Your task to perform on an android device: What's the news in Pakistan? Image 0: 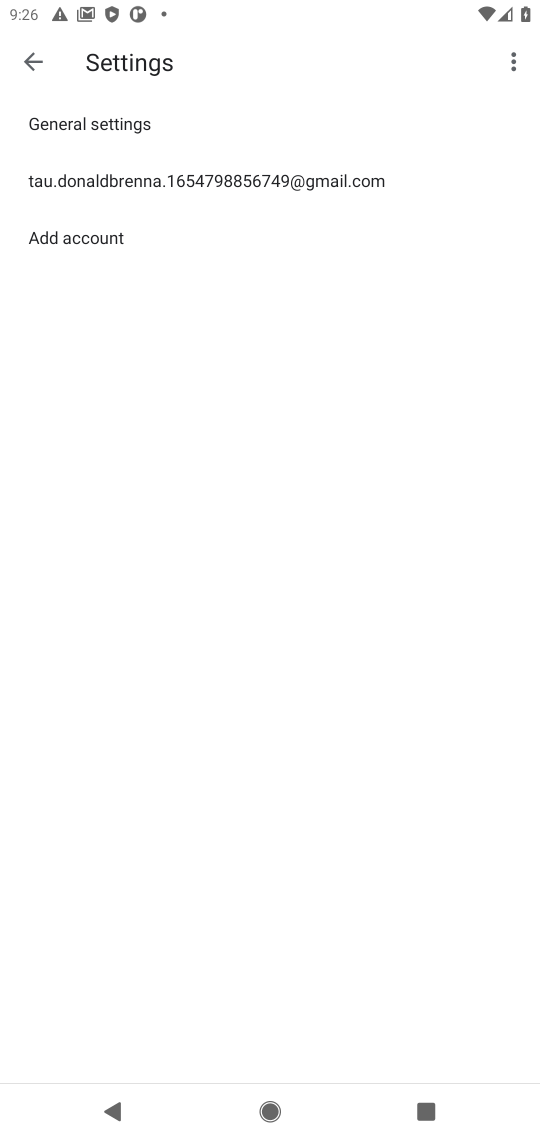
Step 0: press home button
Your task to perform on an android device: What's the news in Pakistan? Image 1: 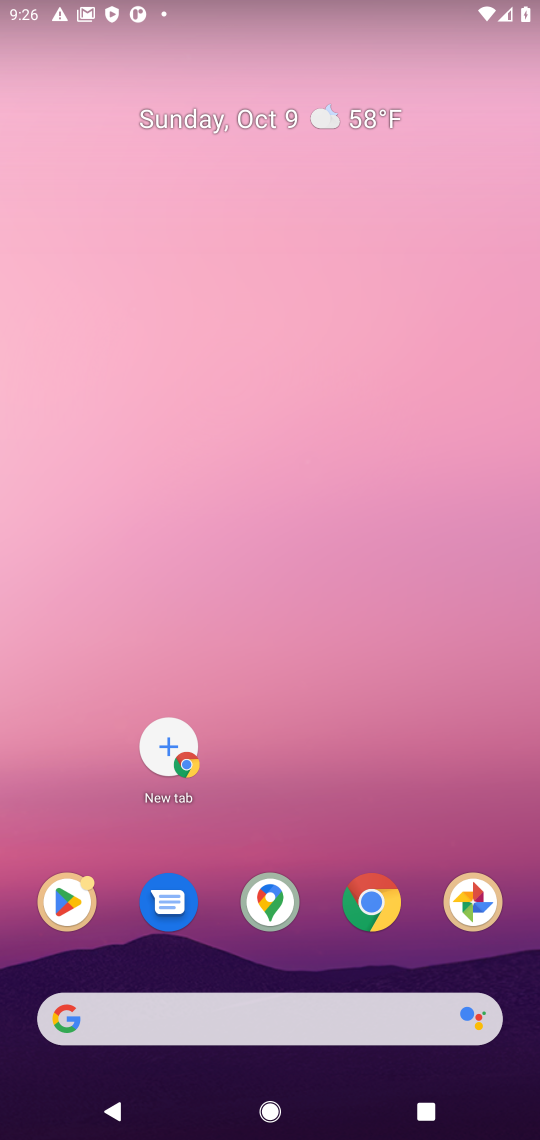
Step 1: click (376, 894)
Your task to perform on an android device: What's the news in Pakistan? Image 2: 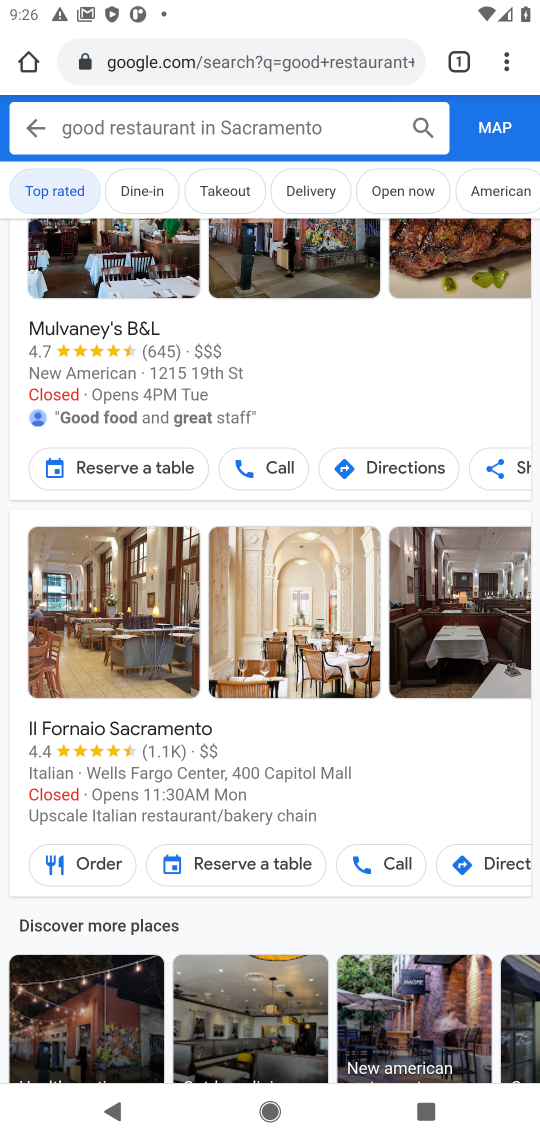
Step 2: click (243, 59)
Your task to perform on an android device: What's the news in Pakistan? Image 3: 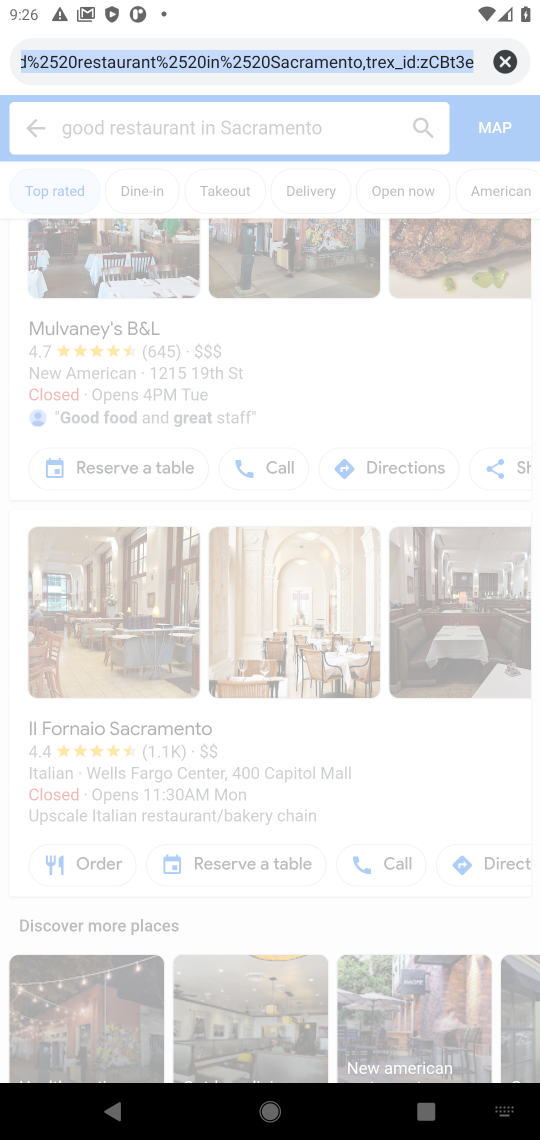
Step 3: type "Pakistan"
Your task to perform on an android device: What's the news in Pakistan? Image 4: 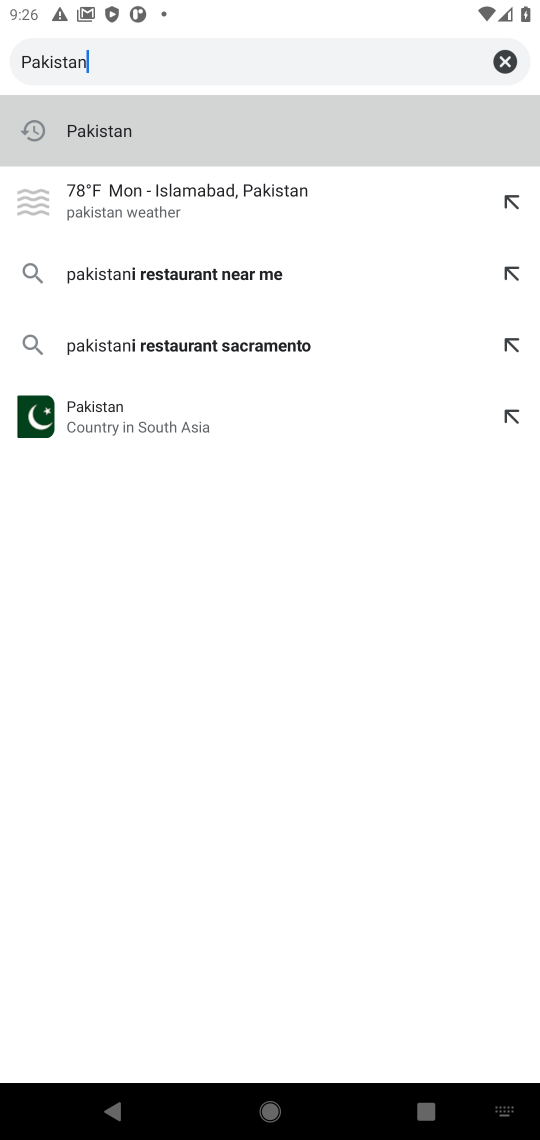
Step 4: click (95, 134)
Your task to perform on an android device: What's the news in Pakistan? Image 5: 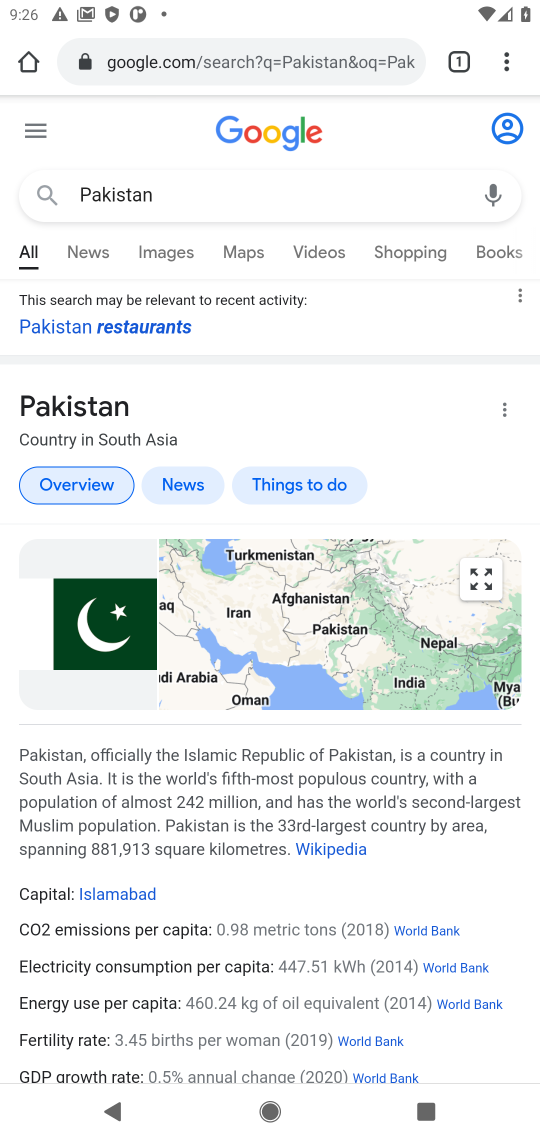
Step 5: click (174, 489)
Your task to perform on an android device: What's the news in Pakistan? Image 6: 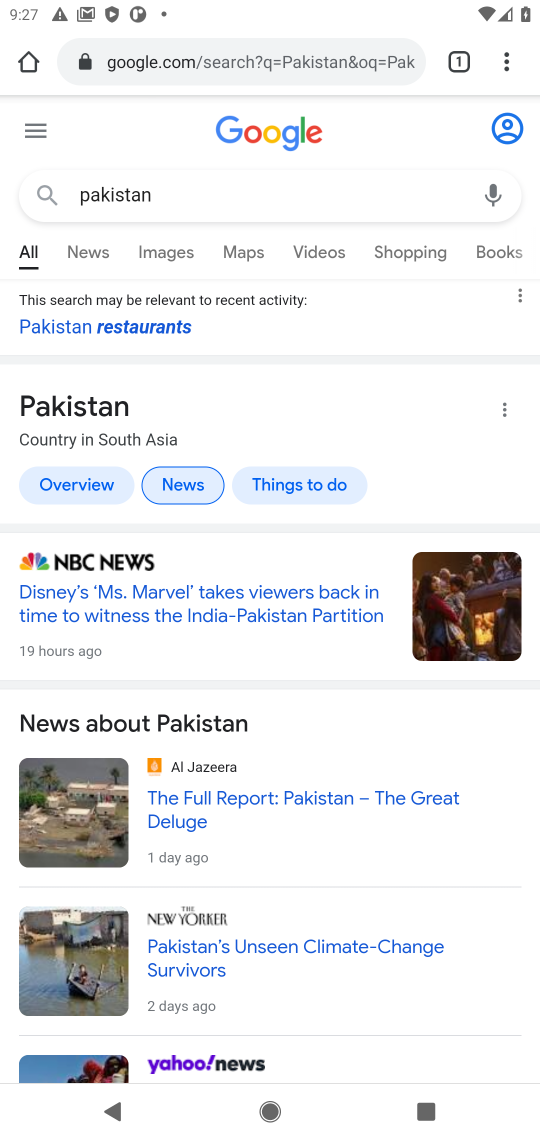
Step 6: task complete